Your task to perform on an android device: Go to ESPN.com Image 0: 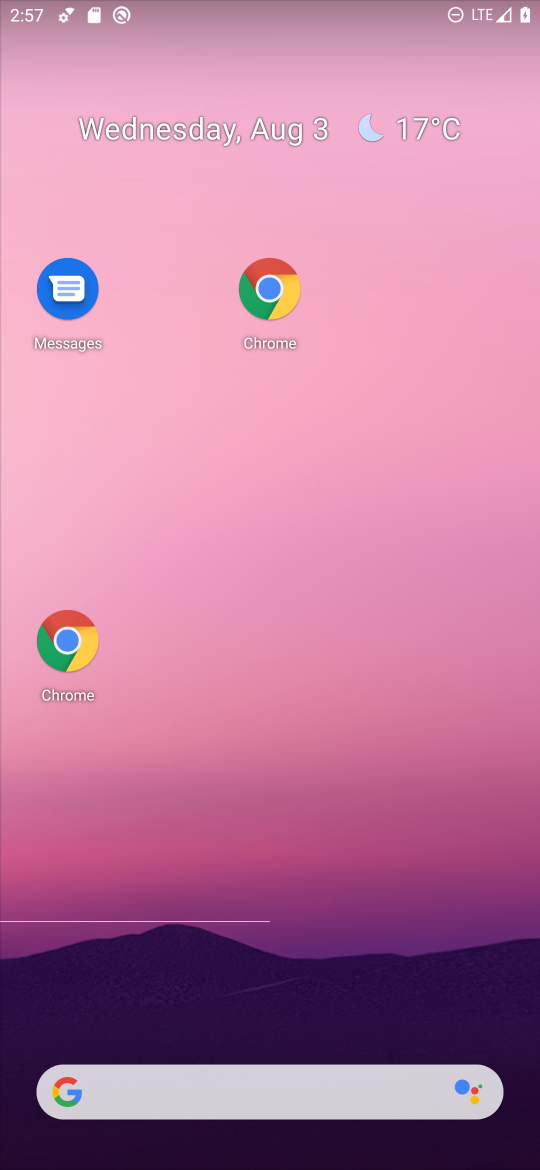
Step 0: click (63, 699)
Your task to perform on an android device: Go to ESPN.com Image 1: 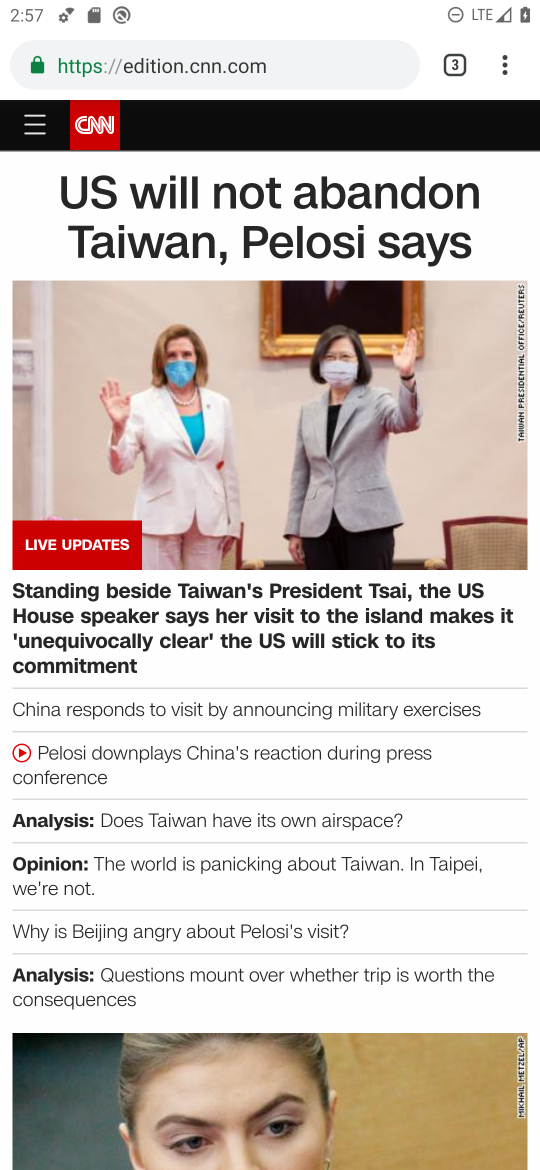
Step 1: click (381, 85)
Your task to perform on an android device: Go to ESPN.com Image 2: 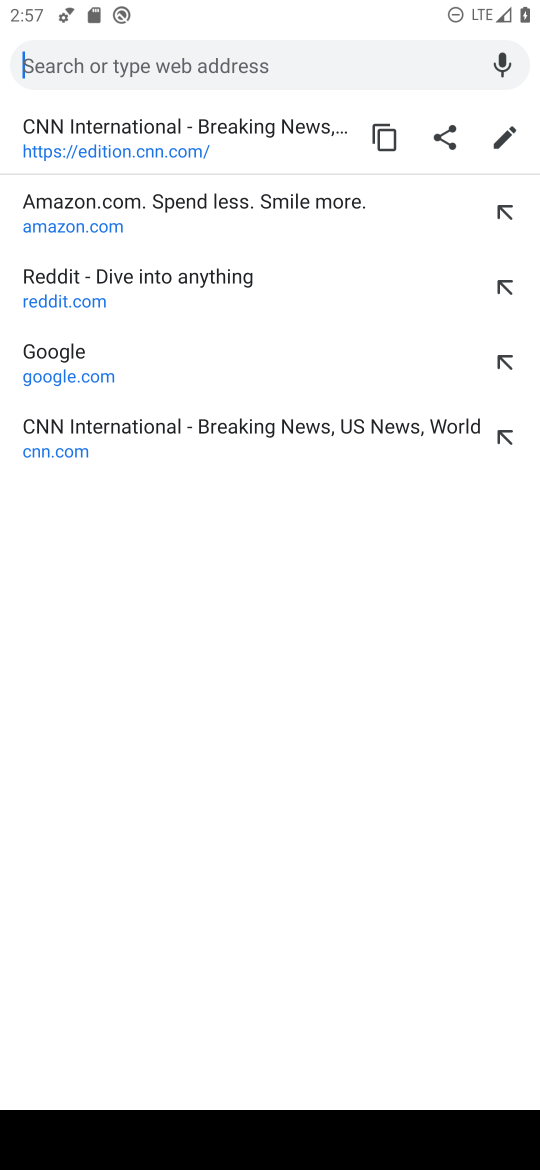
Step 2: type "espn.com"
Your task to perform on an android device: Go to ESPN.com Image 3: 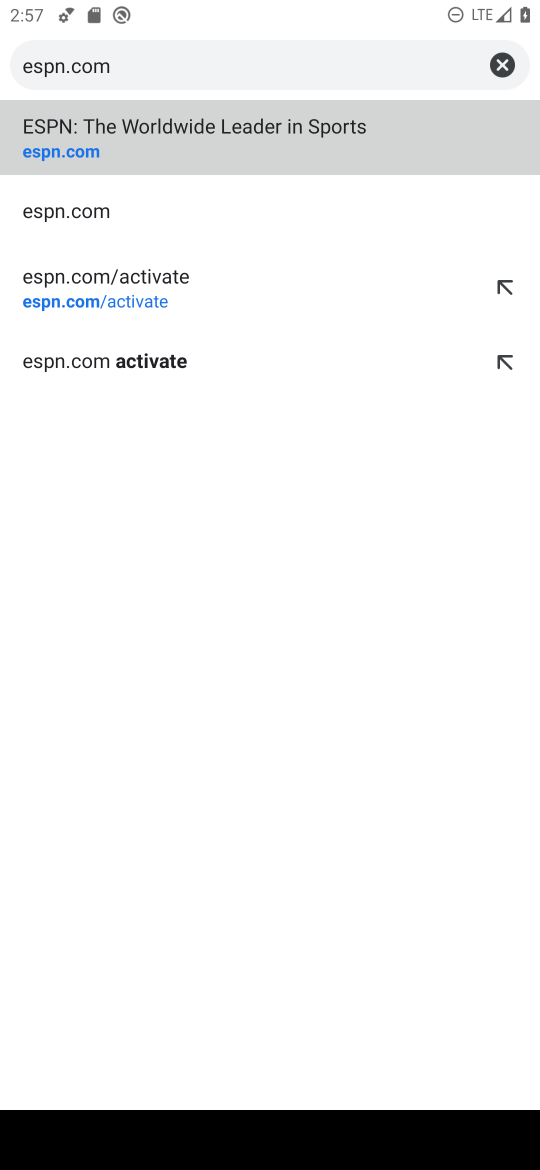
Step 3: click (224, 130)
Your task to perform on an android device: Go to ESPN.com Image 4: 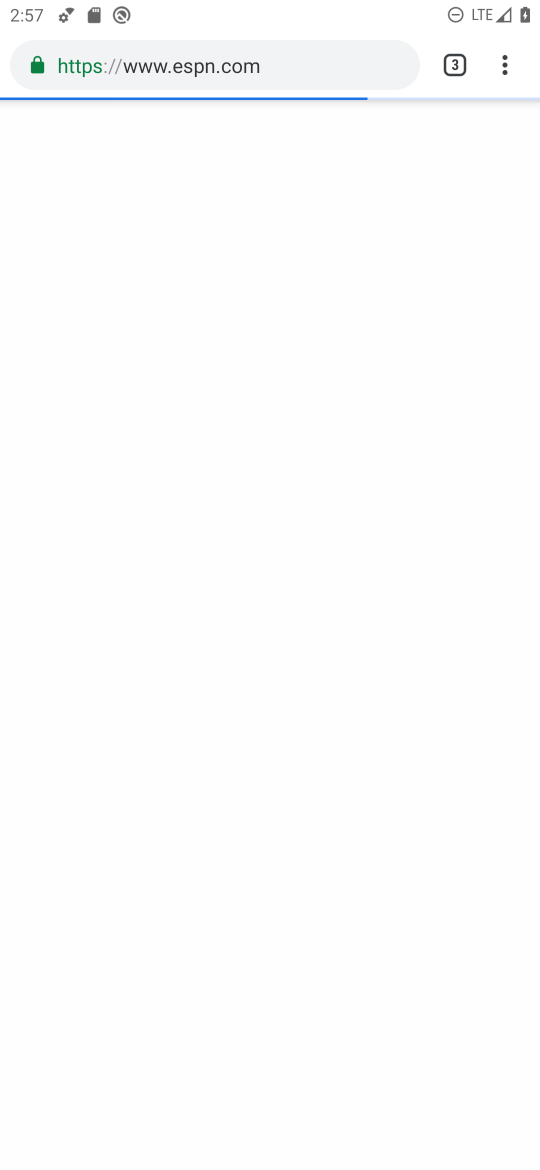
Step 4: task complete